Your task to perform on an android device: Do I have any events this weekend? Image 0: 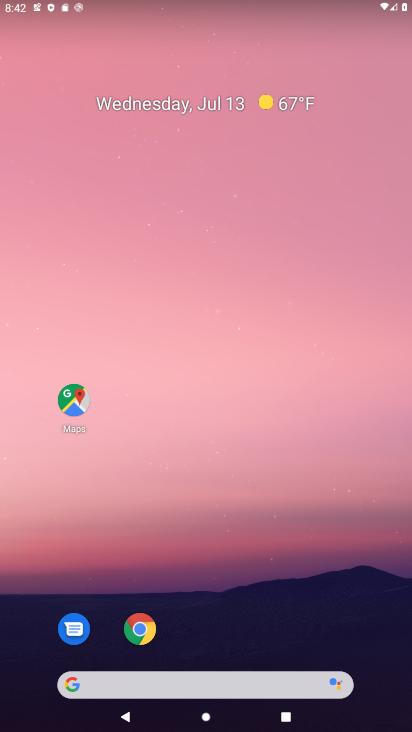
Step 0: drag from (191, 625) to (227, 23)
Your task to perform on an android device: Do I have any events this weekend? Image 1: 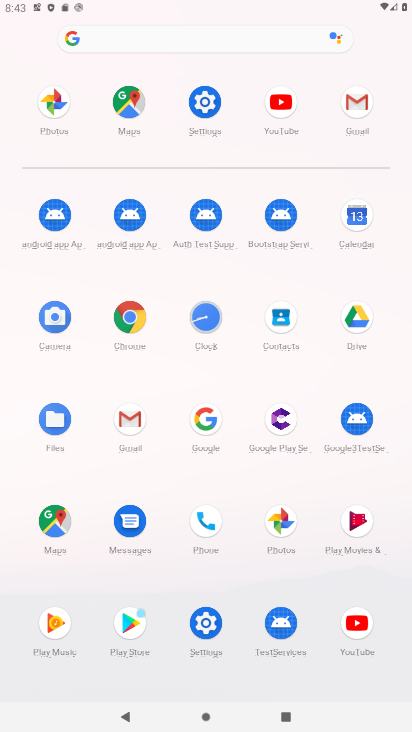
Step 1: click (364, 223)
Your task to perform on an android device: Do I have any events this weekend? Image 2: 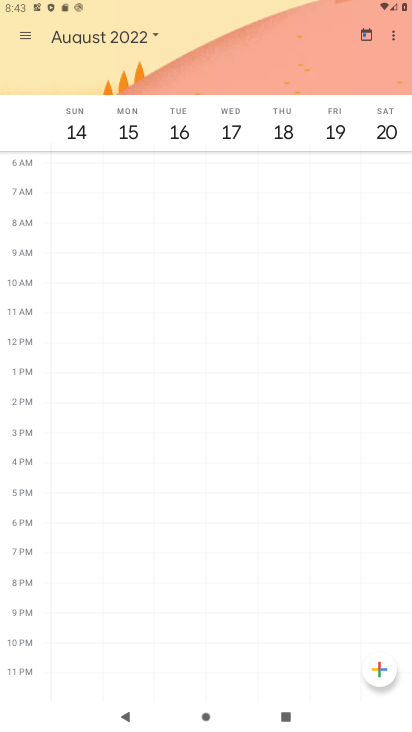
Step 2: click (16, 33)
Your task to perform on an android device: Do I have any events this weekend? Image 3: 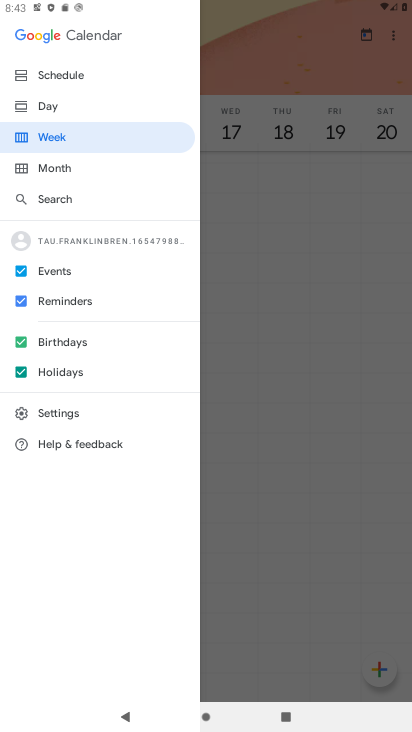
Step 3: click (57, 290)
Your task to perform on an android device: Do I have any events this weekend? Image 4: 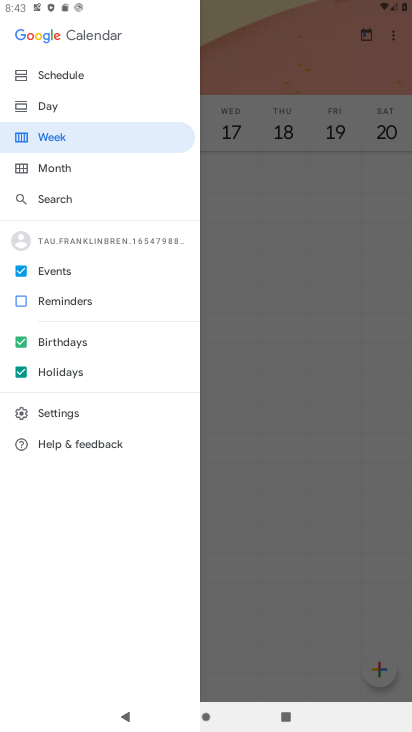
Step 4: click (55, 339)
Your task to perform on an android device: Do I have any events this weekend? Image 5: 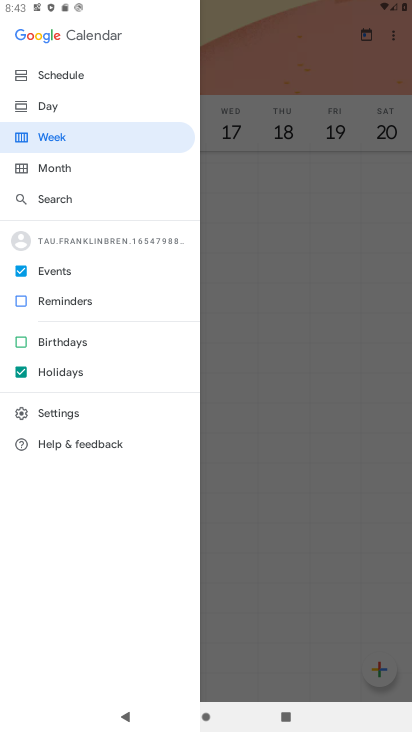
Step 5: click (52, 373)
Your task to perform on an android device: Do I have any events this weekend? Image 6: 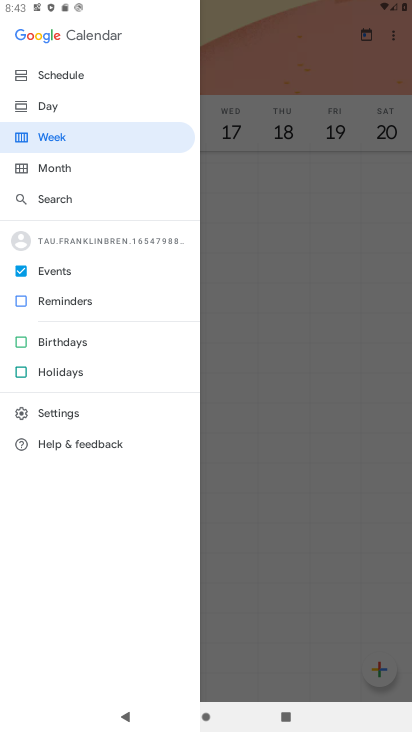
Step 6: click (76, 136)
Your task to perform on an android device: Do I have any events this weekend? Image 7: 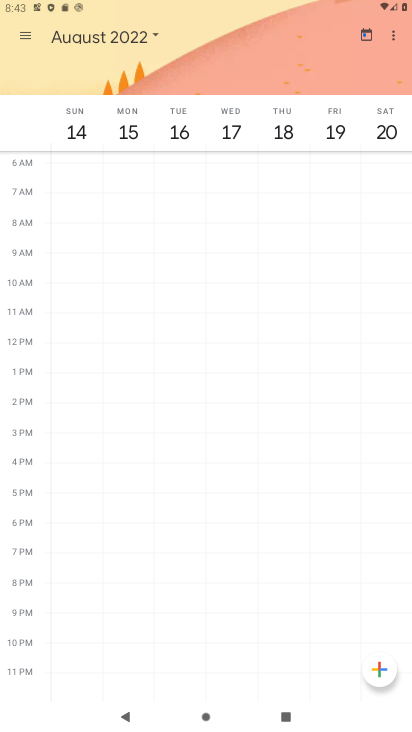
Step 7: task complete